Your task to perform on an android device: change the clock display to digital Image 0: 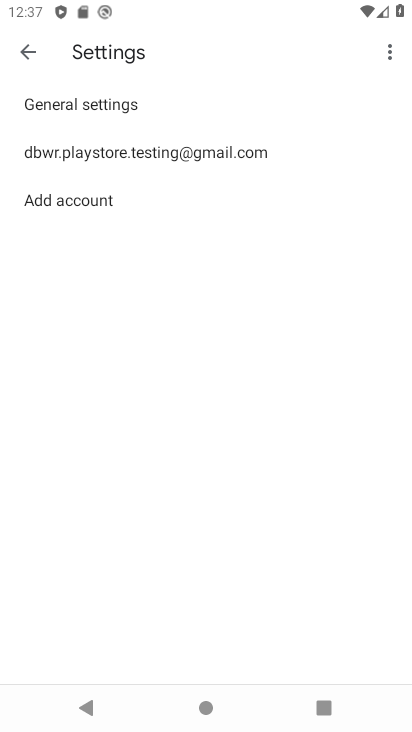
Step 0: press home button
Your task to perform on an android device: change the clock display to digital Image 1: 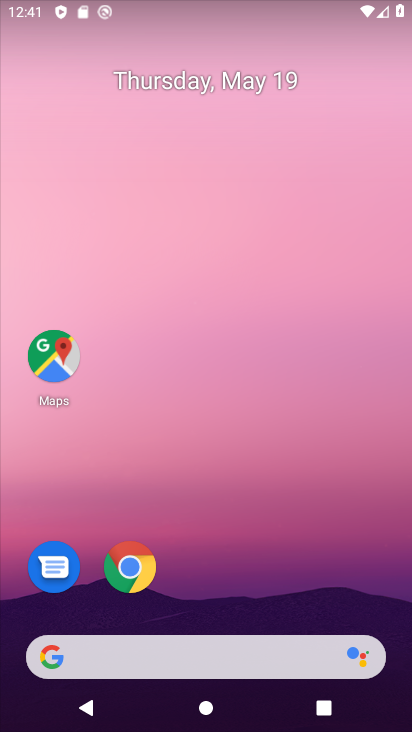
Step 1: drag from (30, 661) to (263, 253)
Your task to perform on an android device: change the clock display to digital Image 2: 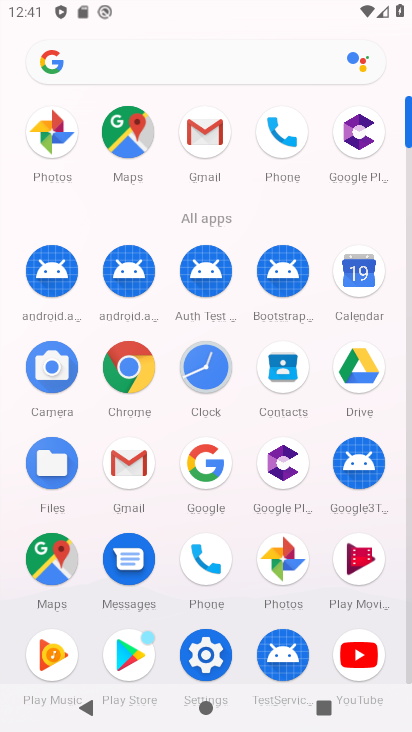
Step 2: click (209, 360)
Your task to perform on an android device: change the clock display to digital Image 3: 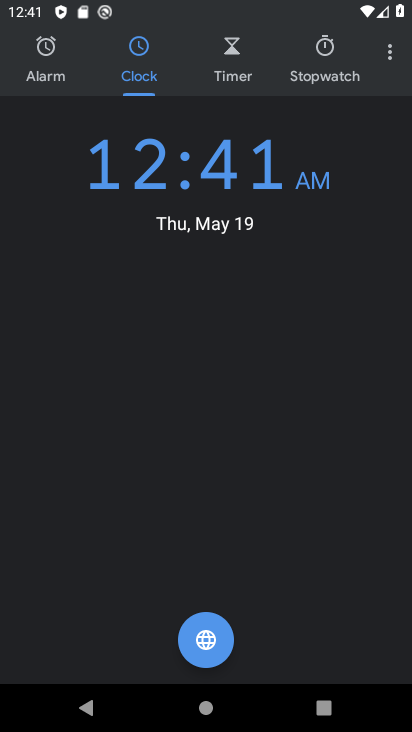
Step 3: click (388, 47)
Your task to perform on an android device: change the clock display to digital Image 4: 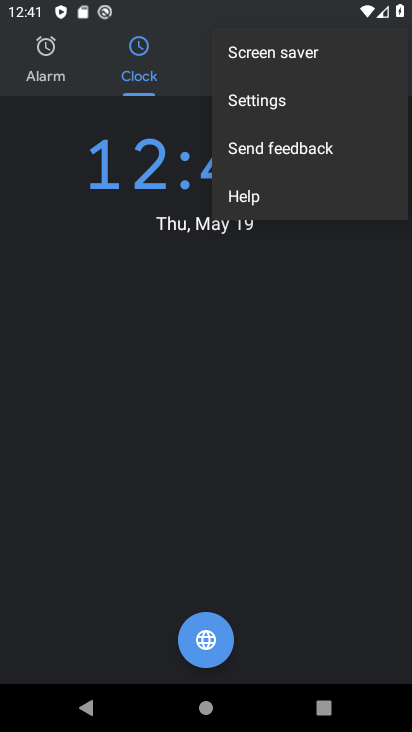
Step 4: click (313, 93)
Your task to perform on an android device: change the clock display to digital Image 5: 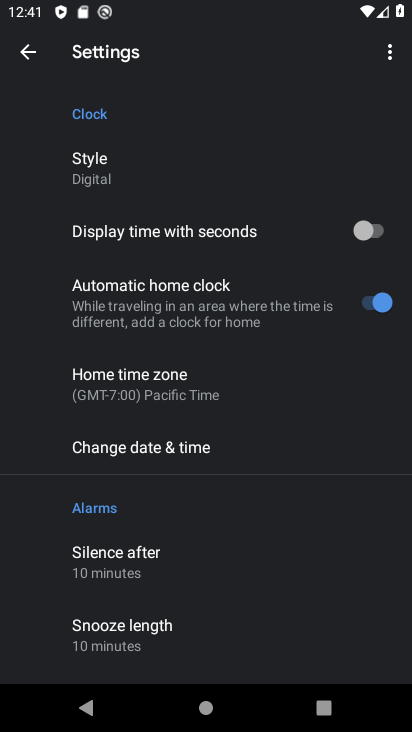
Step 5: click (192, 176)
Your task to perform on an android device: change the clock display to digital Image 6: 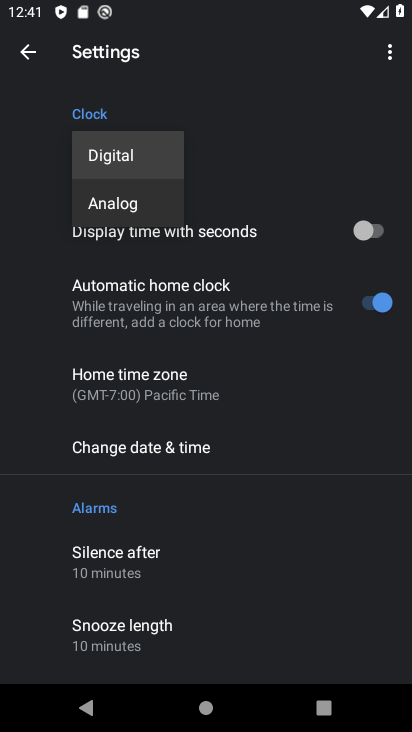
Step 6: click (154, 163)
Your task to perform on an android device: change the clock display to digital Image 7: 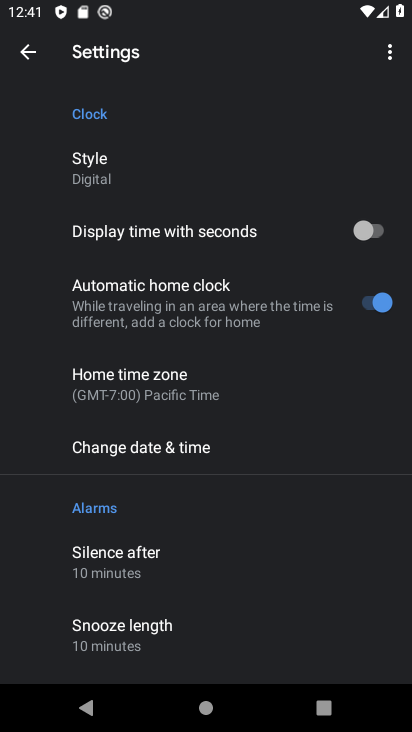
Step 7: task complete